Your task to perform on an android device: turn off location Image 0: 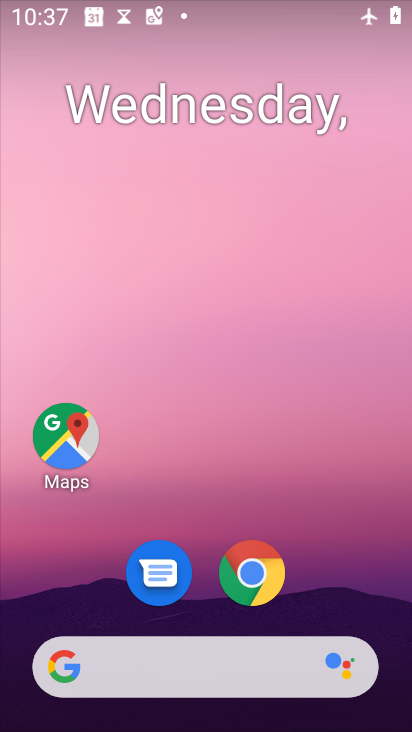
Step 0: drag from (346, 570) to (308, 259)
Your task to perform on an android device: turn off location Image 1: 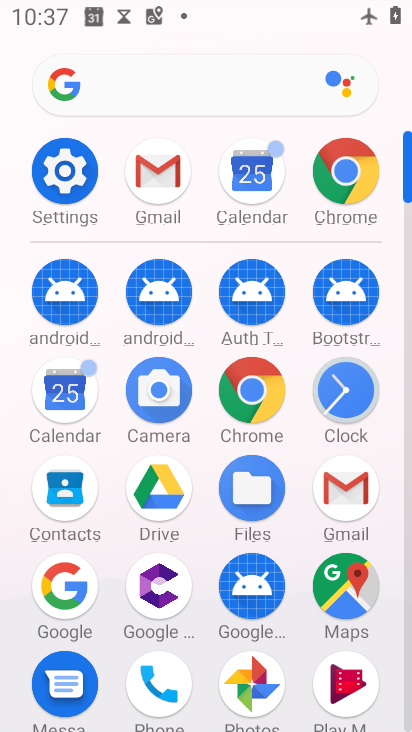
Step 1: click (67, 156)
Your task to perform on an android device: turn off location Image 2: 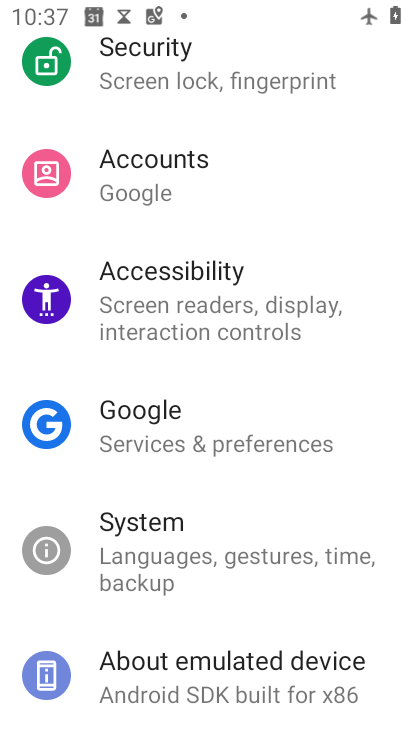
Step 2: drag from (198, 111) to (206, 554)
Your task to perform on an android device: turn off location Image 3: 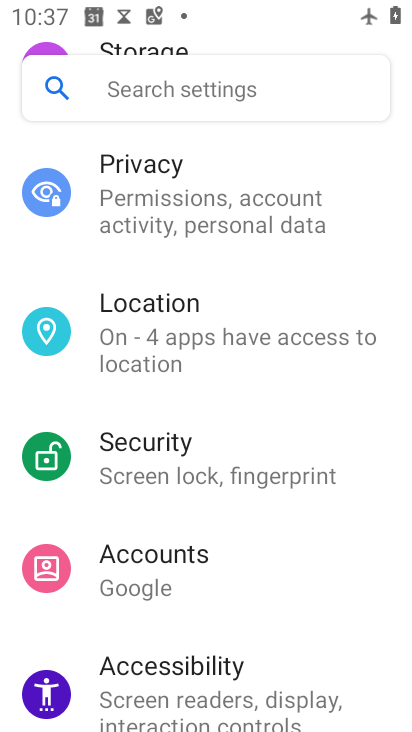
Step 3: click (182, 324)
Your task to perform on an android device: turn off location Image 4: 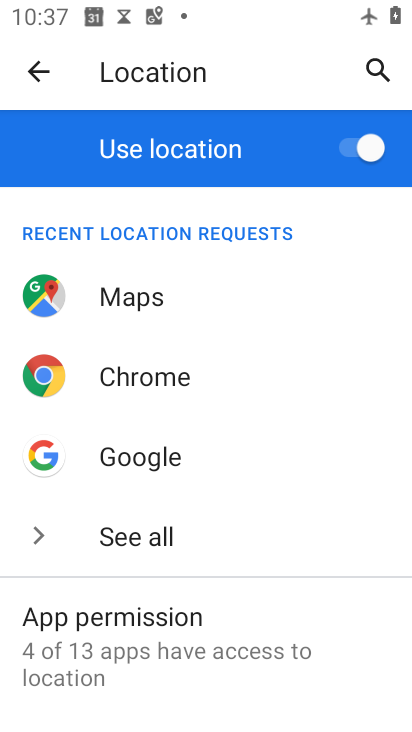
Step 4: click (345, 137)
Your task to perform on an android device: turn off location Image 5: 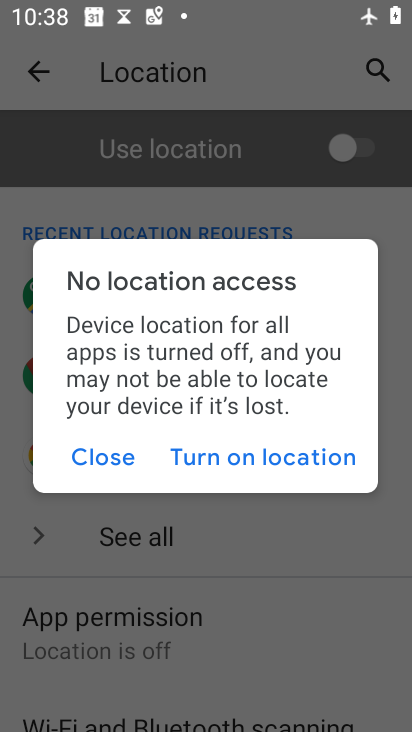
Step 5: click (212, 452)
Your task to perform on an android device: turn off location Image 6: 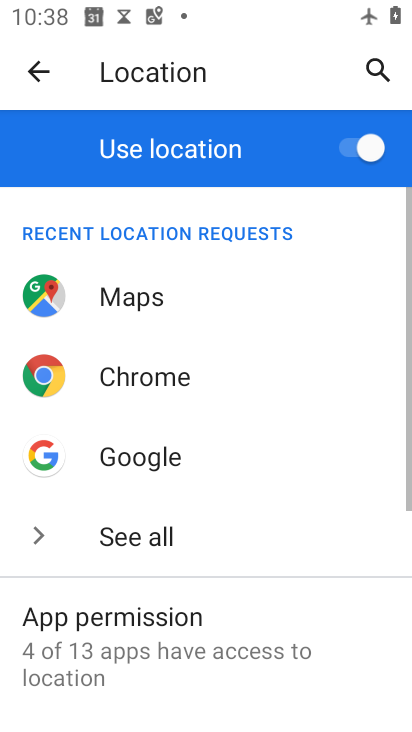
Step 6: click (345, 147)
Your task to perform on an android device: turn off location Image 7: 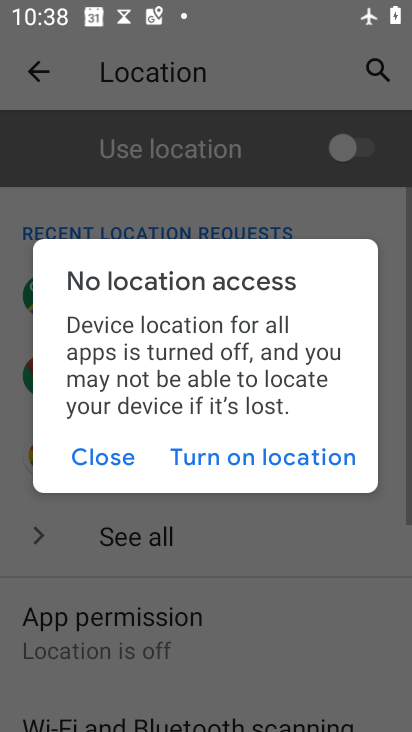
Step 7: click (116, 459)
Your task to perform on an android device: turn off location Image 8: 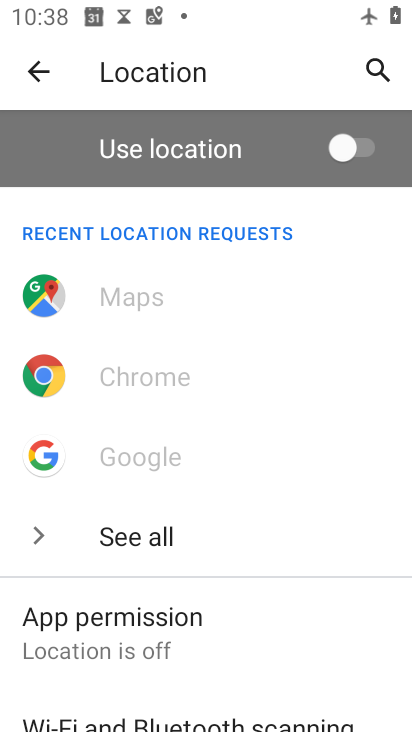
Step 8: task complete